Your task to perform on an android device: Clear the cart on walmart. Add alienware area 51 to the cart on walmart Image 0: 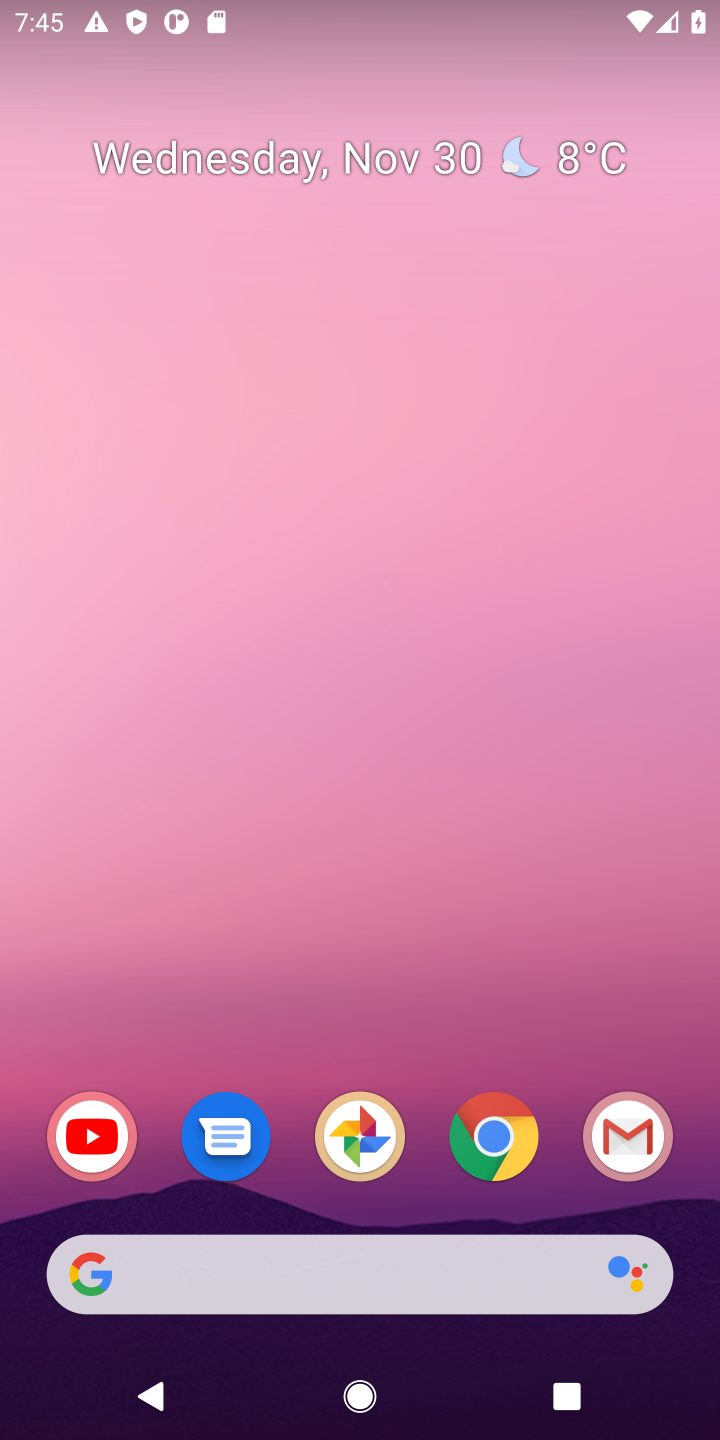
Step 0: click (495, 1148)
Your task to perform on an android device: Clear the cart on walmart. Add alienware area 51 to the cart on walmart Image 1: 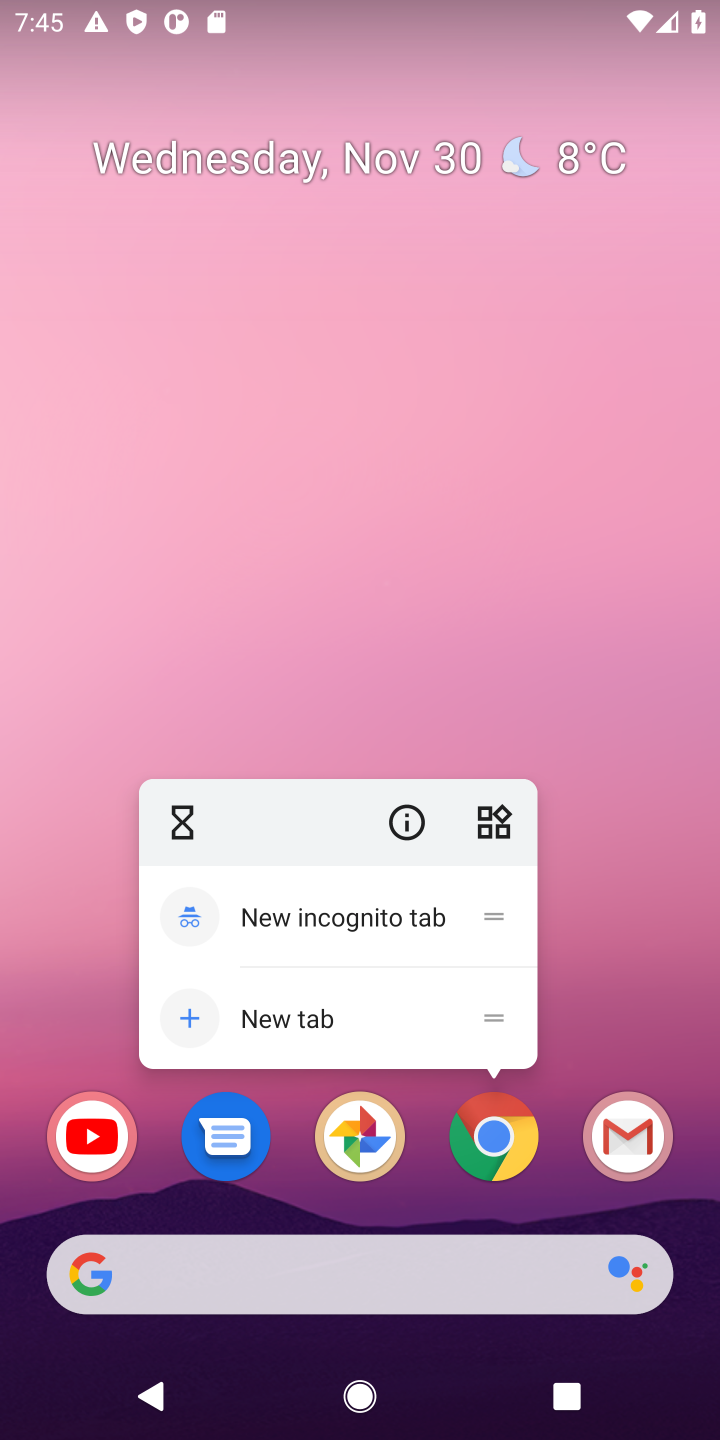
Step 1: click (495, 1148)
Your task to perform on an android device: Clear the cart on walmart. Add alienware area 51 to the cart on walmart Image 2: 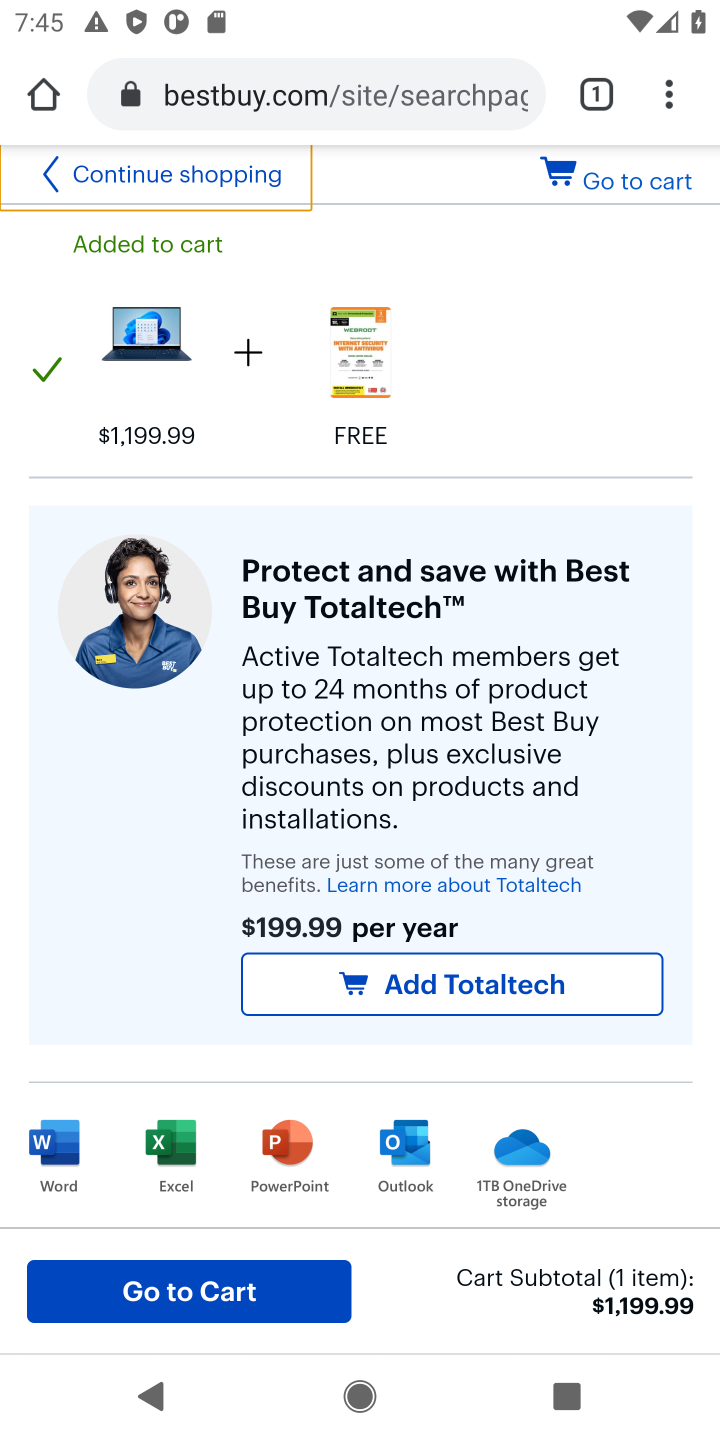
Step 2: click (305, 104)
Your task to perform on an android device: Clear the cart on walmart. Add alienware area 51 to the cart on walmart Image 3: 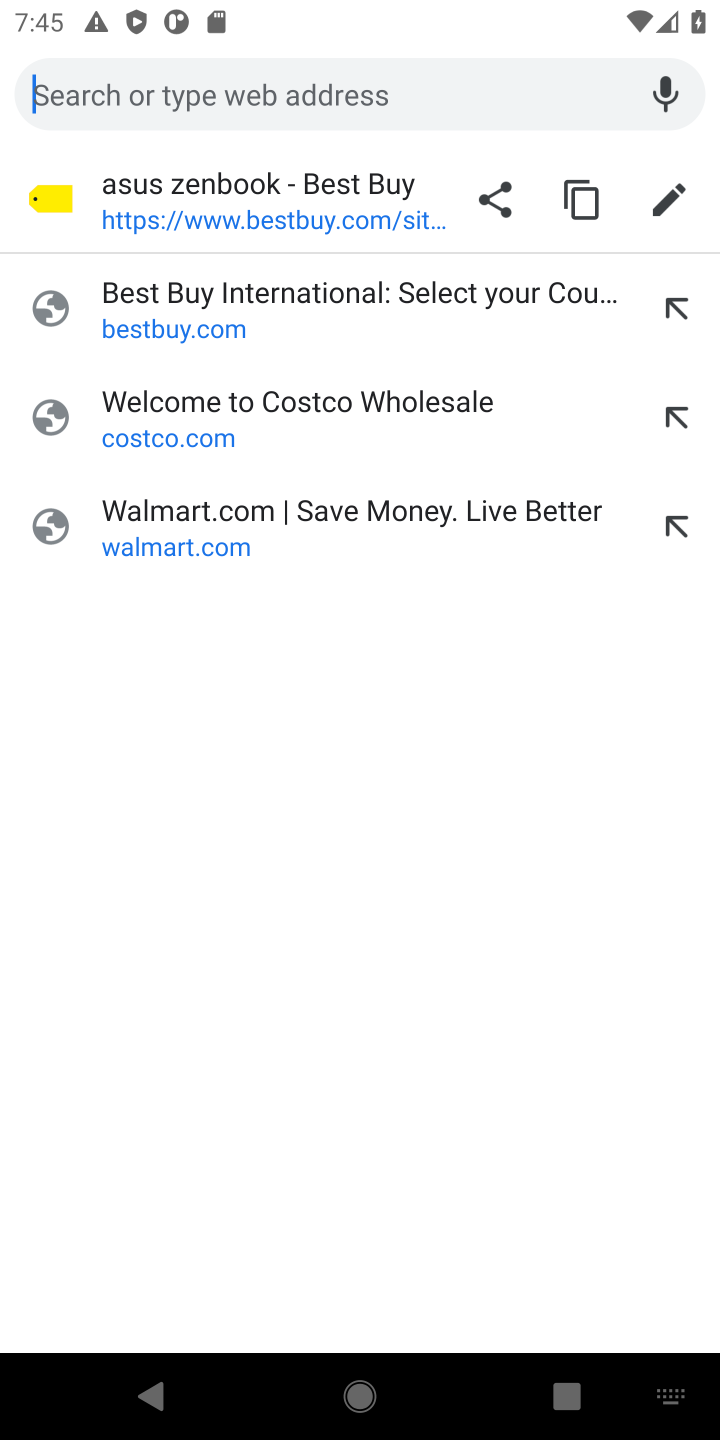
Step 3: click (196, 527)
Your task to perform on an android device: Clear the cart on walmart. Add alienware area 51 to the cart on walmart Image 4: 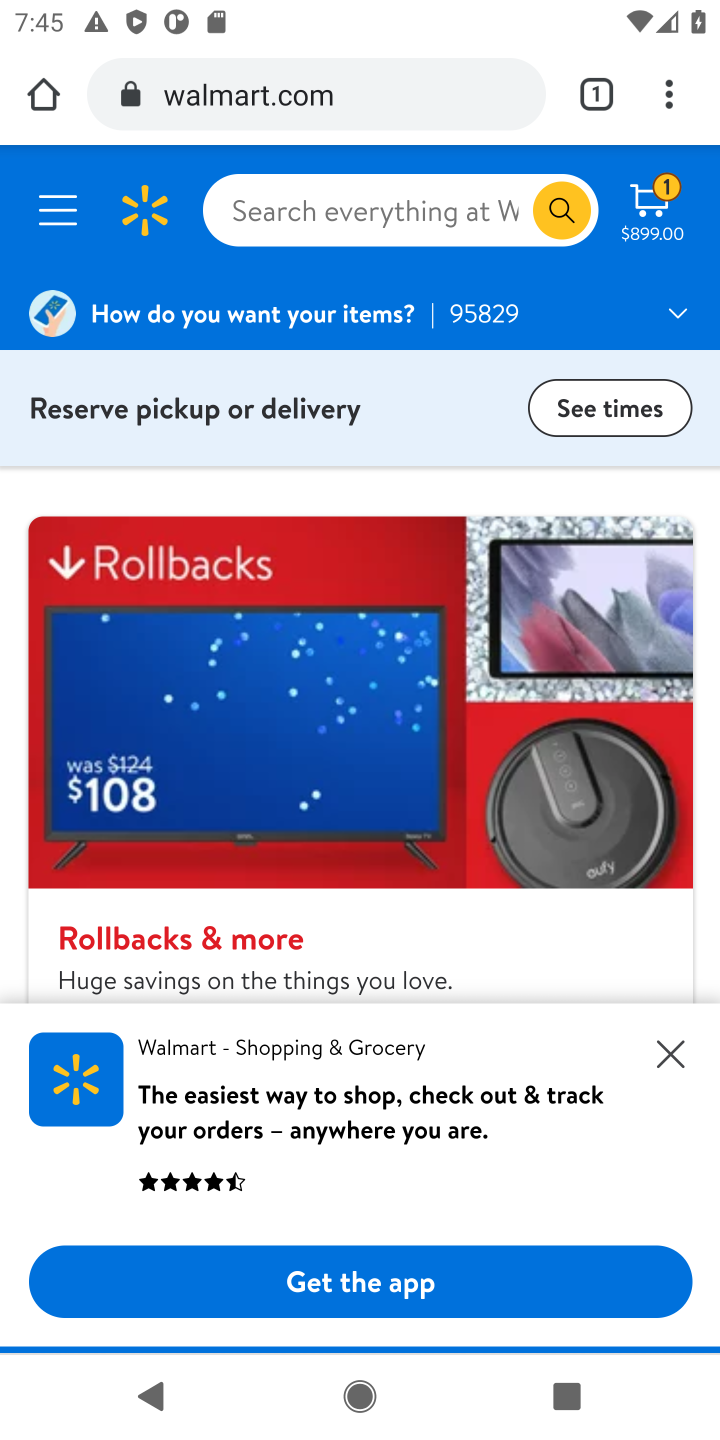
Step 4: click (652, 219)
Your task to perform on an android device: Clear the cart on walmart. Add alienware area 51 to the cart on walmart Image 5: 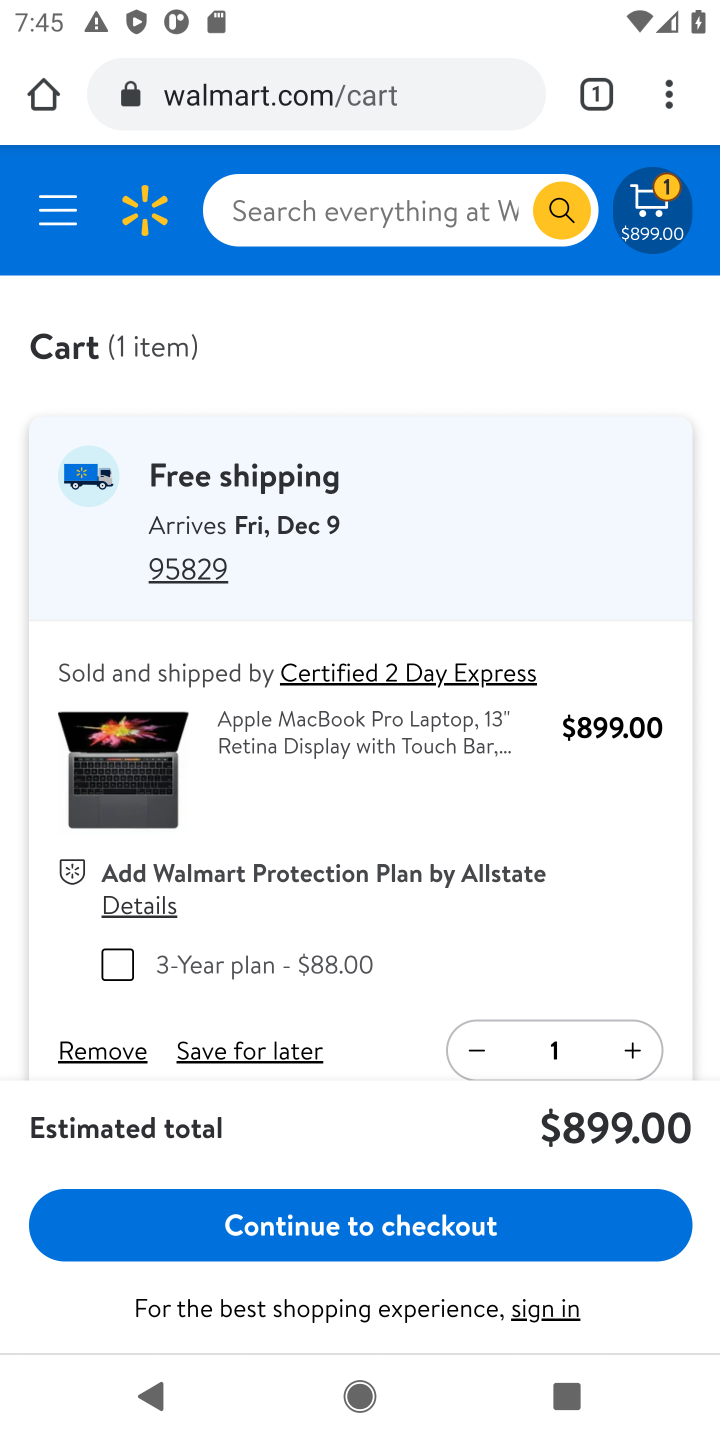
Step 5: click (99, 1049)
Your task to perform on an android device: Clear the cart on walmart. Add alienware area 51 to the cart on walmart Image 6: 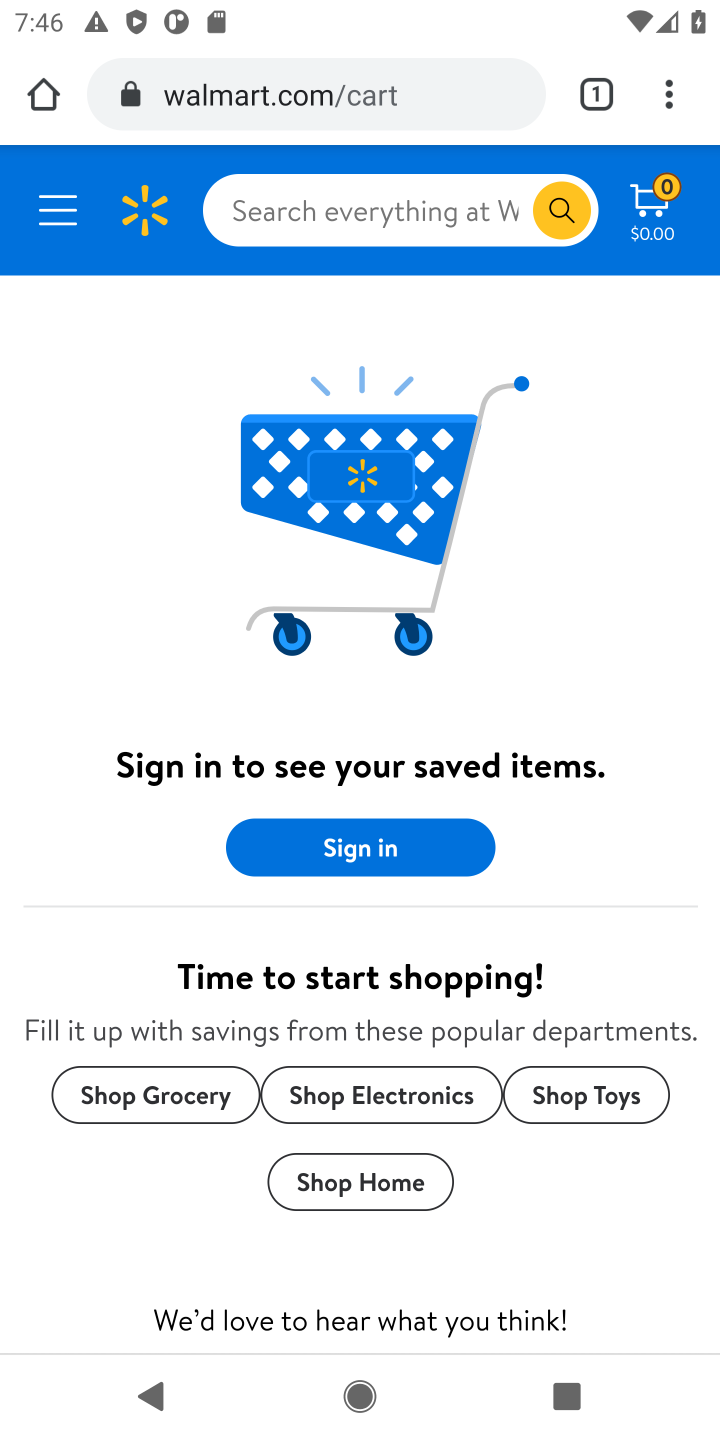
Step 6: click (355, 203)
Your task to perform on an android device: Clear the cart on walmart. Add alienware area 51 to the cart on walmart Image 7: 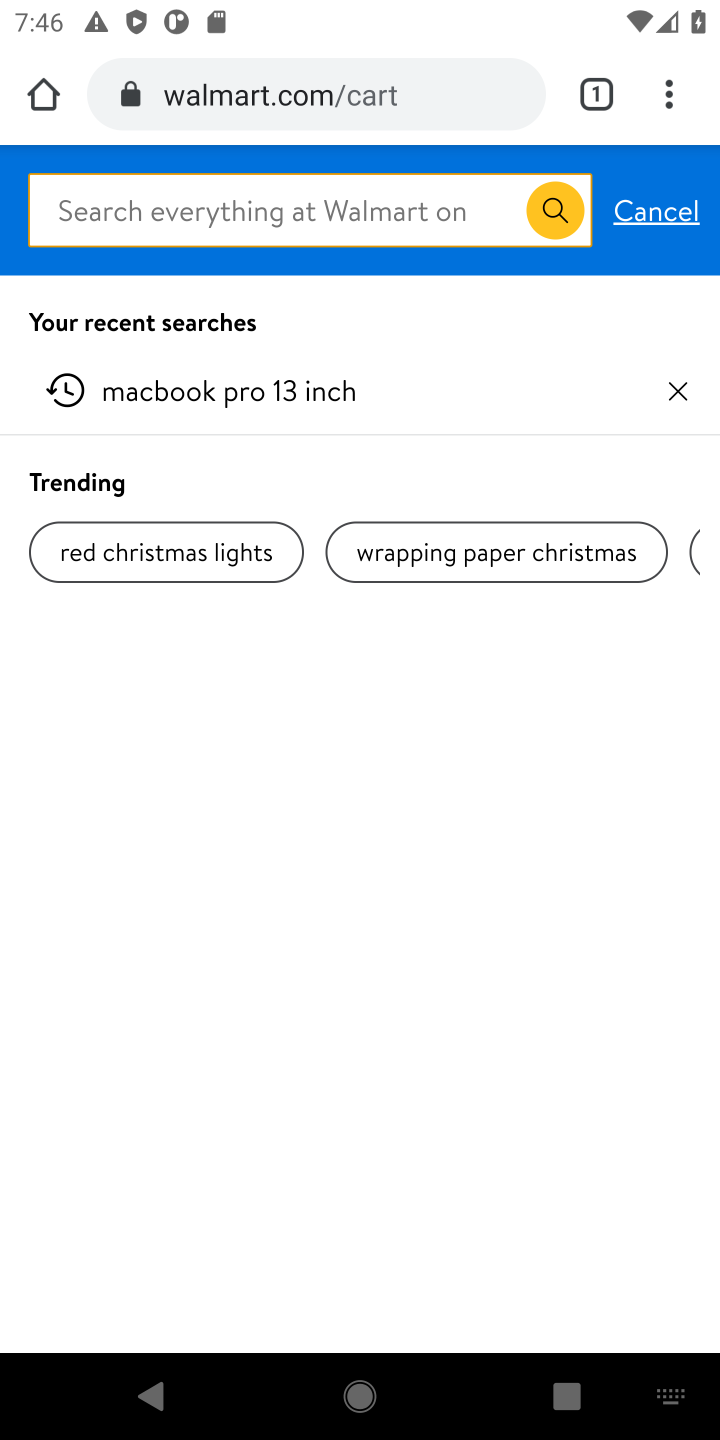
Step 7: type "alienware area 51"
Your task to perform on an android device: Clear the cart on walmart. Add alienware area 51 to the cart on walmart Image 8: 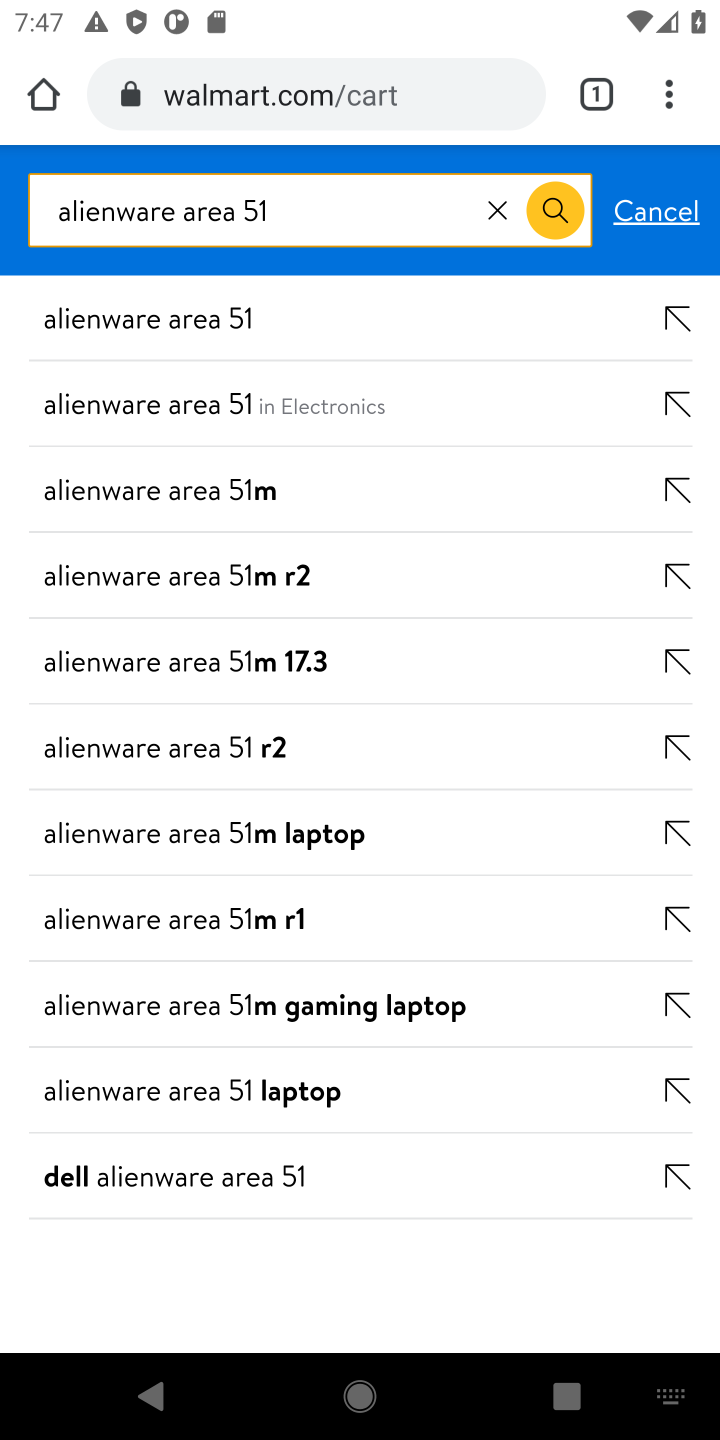
Step 8: click (176, 331)
Your task to perform on an android device: Clear the cart on walmart. Add alienware area 51 to the cart on walmart Image 9: 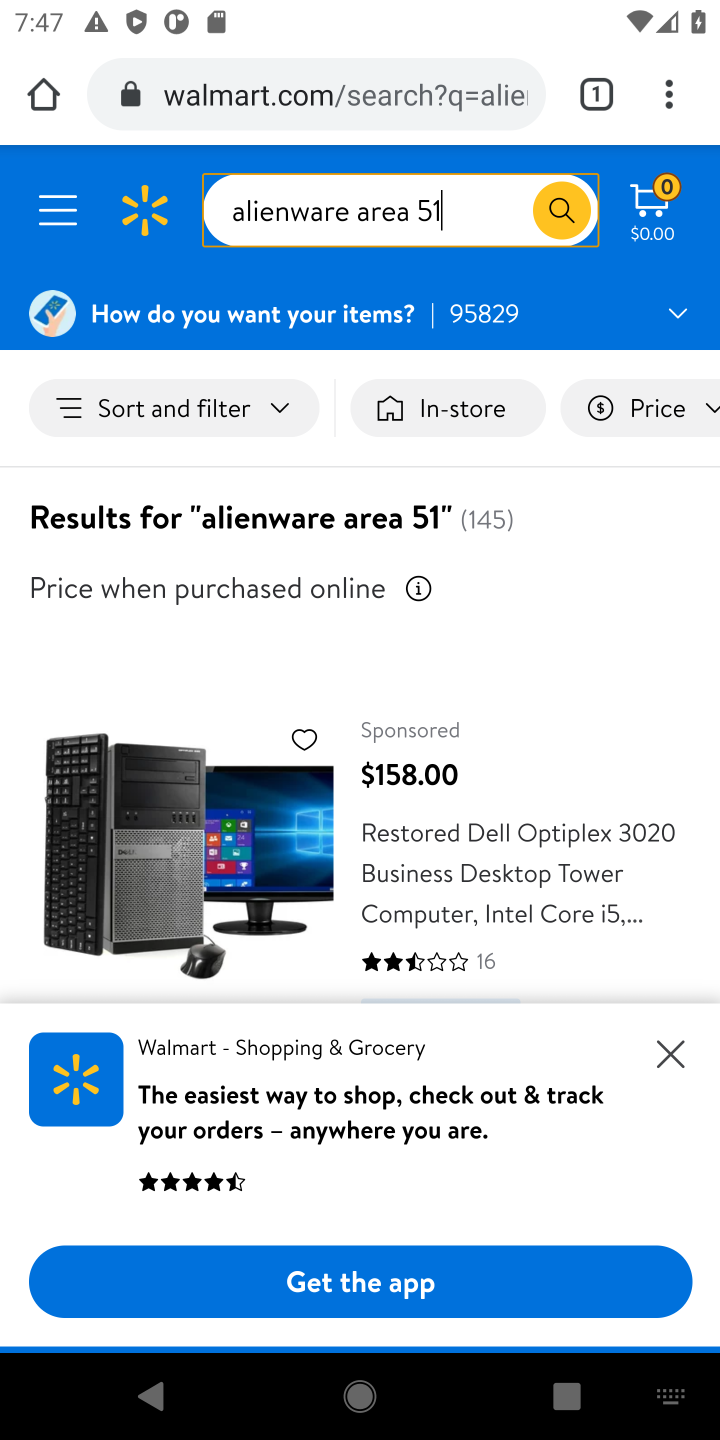
Step 9: drag from (487, 730) to (508, 491)
Your task to perform on an android device: Clear the cart on walmart. Add alienware area 51 to the cart on walmart Image 10: 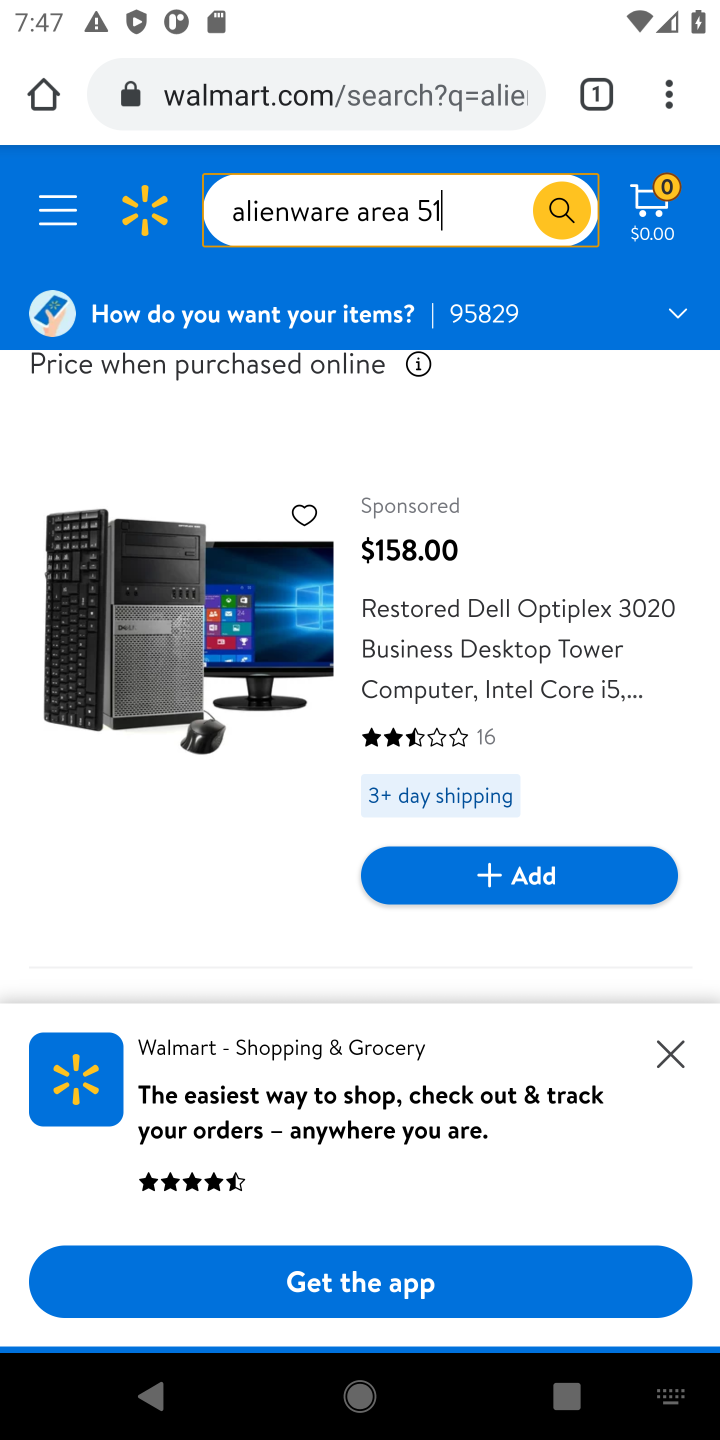
Step 10: drag from (537, 755) to (568, 379)
Your task to perform on an android device: Clear the cart on walmart. Add alienware area 51 to the cart on walmart Image 11: 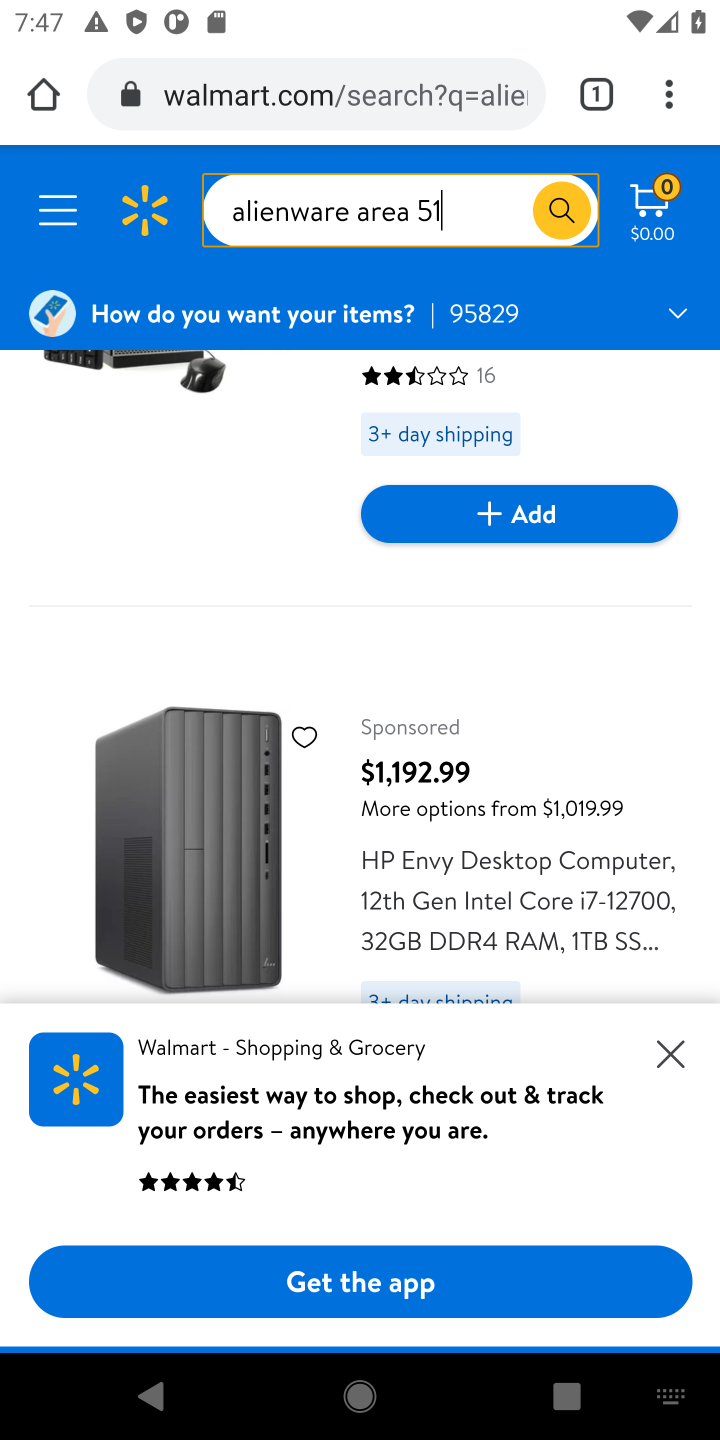
Step 11: click (663, 1050)
Your task to perform on an android device: Clear the cart on walmart. Add alienware area 51 to the cart on walmart Image 12: 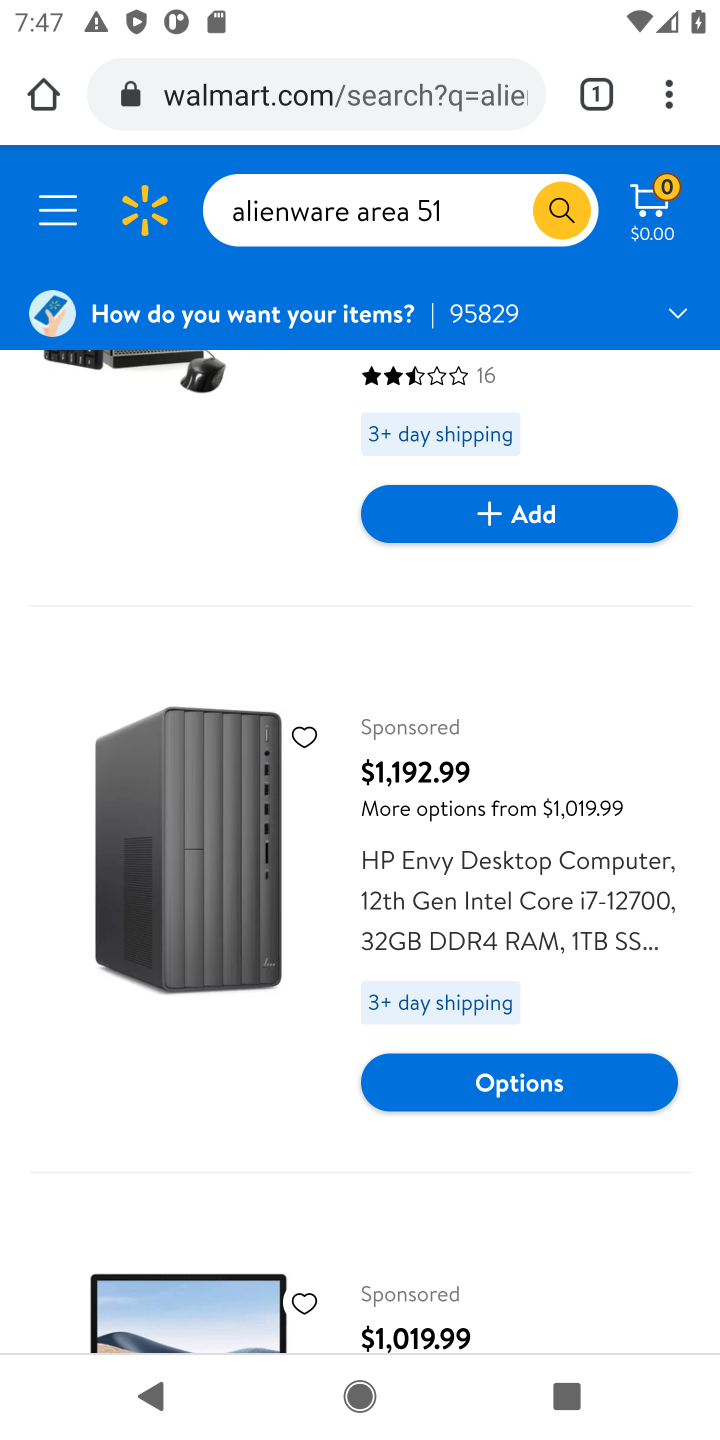
Step 12: drag from (452, 865) to (504, 509)
Your task to perform on an android device: Clear the cart on walmart. Add alienware area 51 to the cart on walmart Image 13: 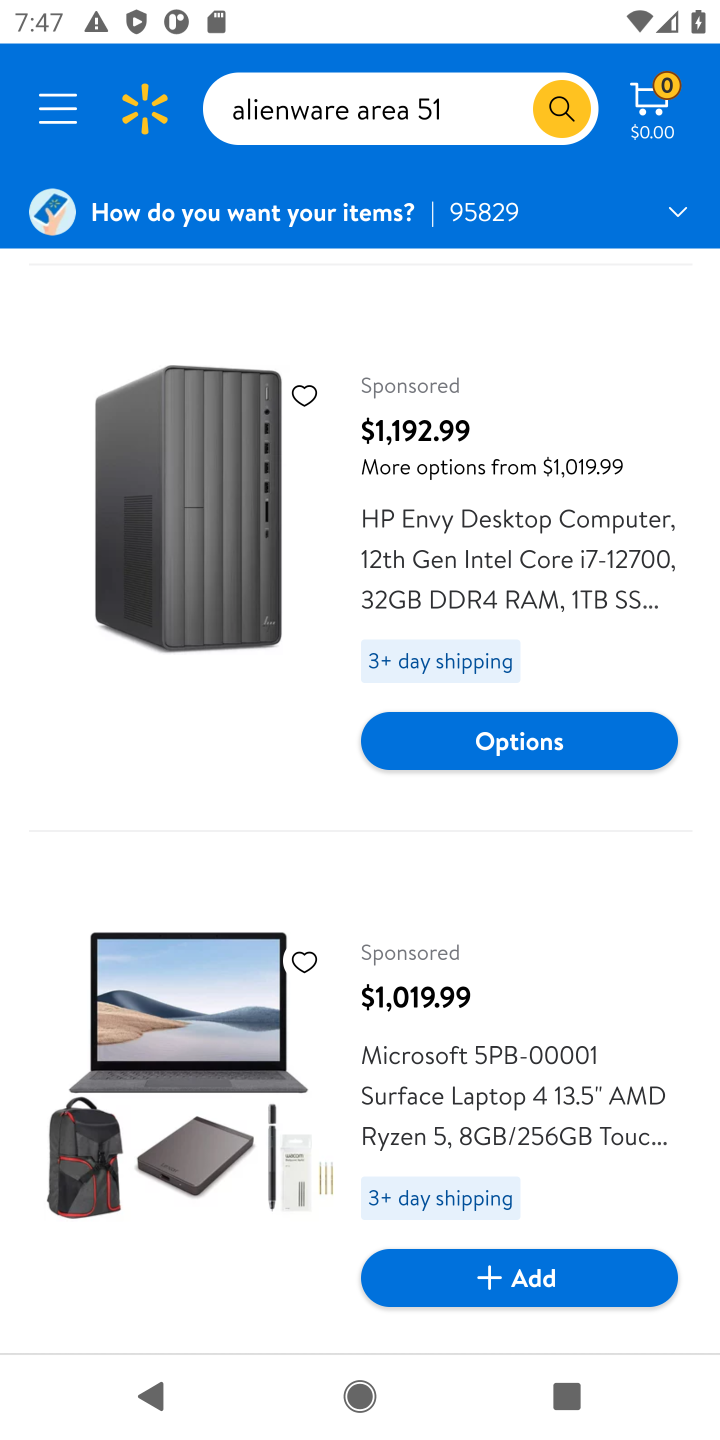
Step 13: drag from (556, 925) to (588, 489)
Your task to perform on an android device: Clear the cart on walmart. Add alienware area 51 to the cart on walmart Image 14: 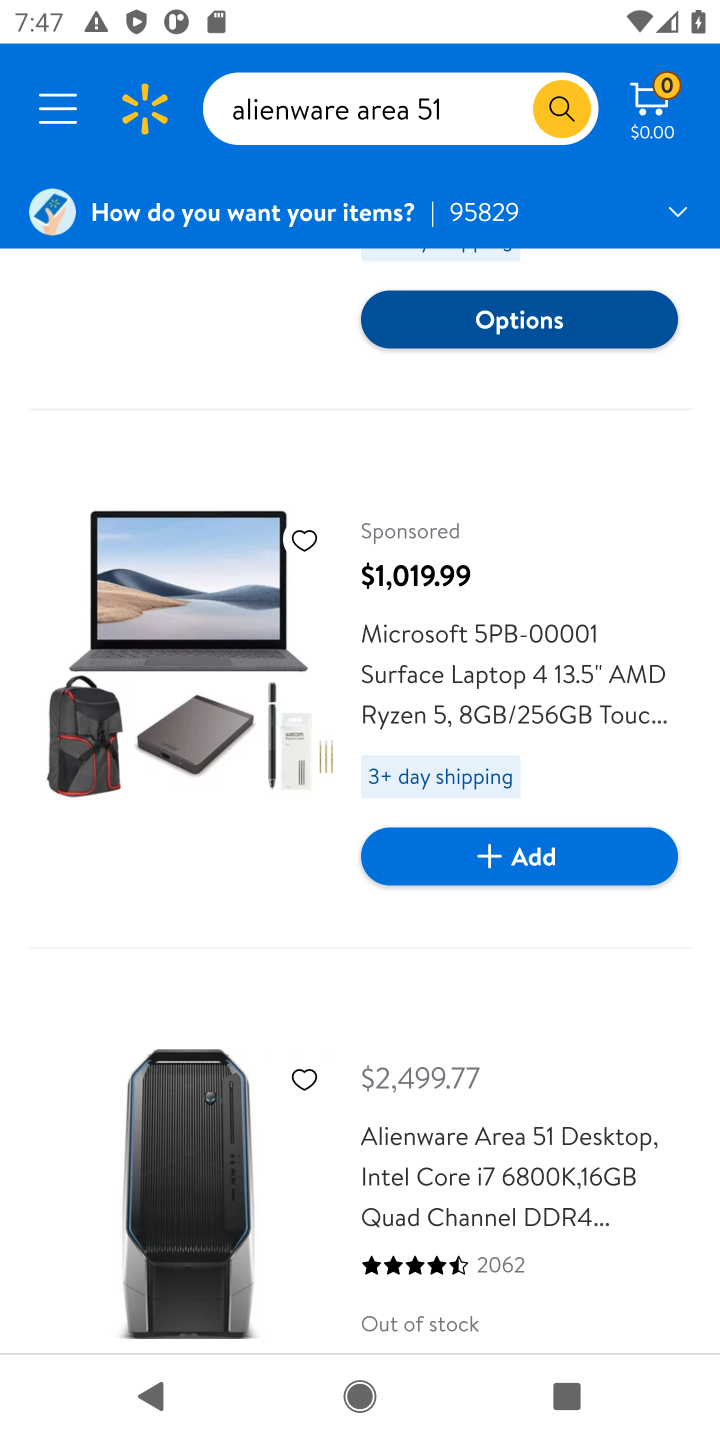
Step 14: drag from (572, 1027) to (605, 683)
Your task to perform on an android device: Clear the cart on walmart. Add alienware area 51 to the cart on walmart Image 15: 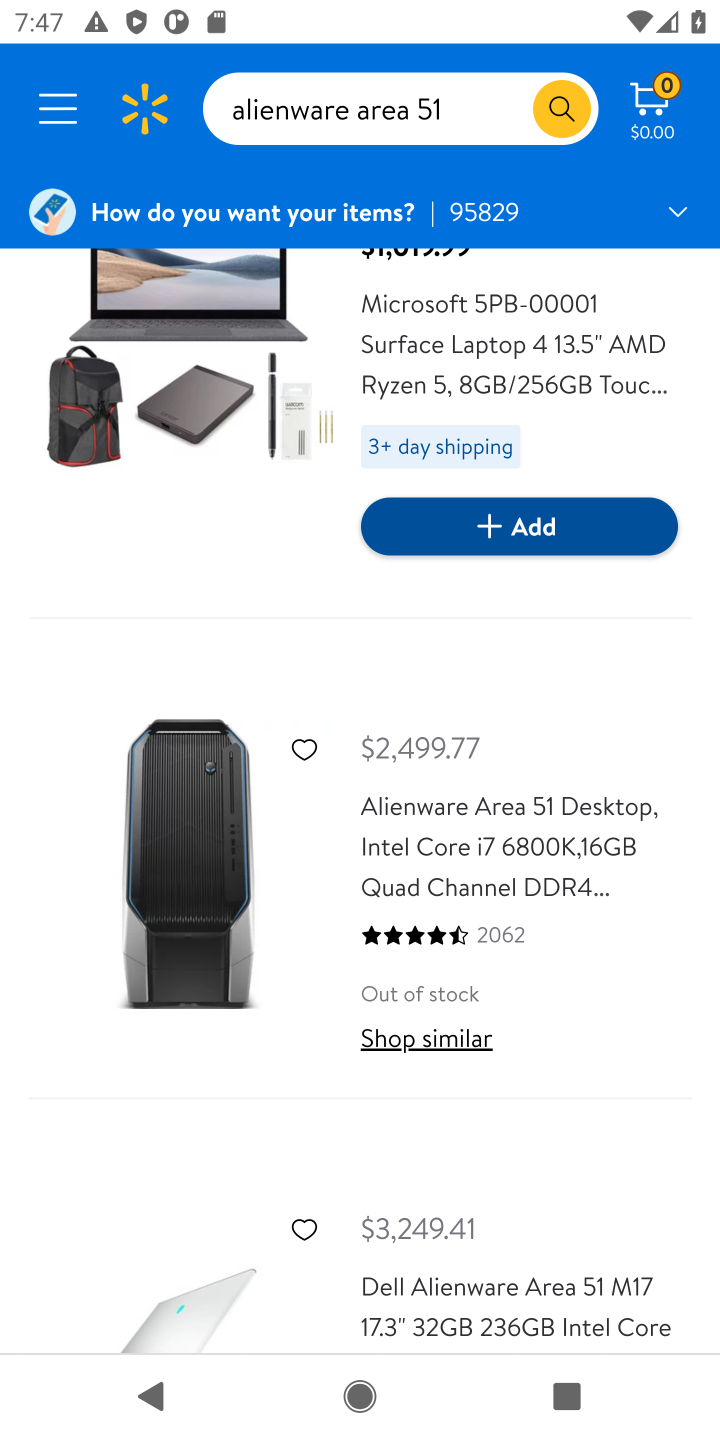
Step 15: drag from (523, 958) to (535, 501)
Your task to perform on an android device: Clear the cart on walmart. Add alienware area 51 to the cart on walmart Image 16: 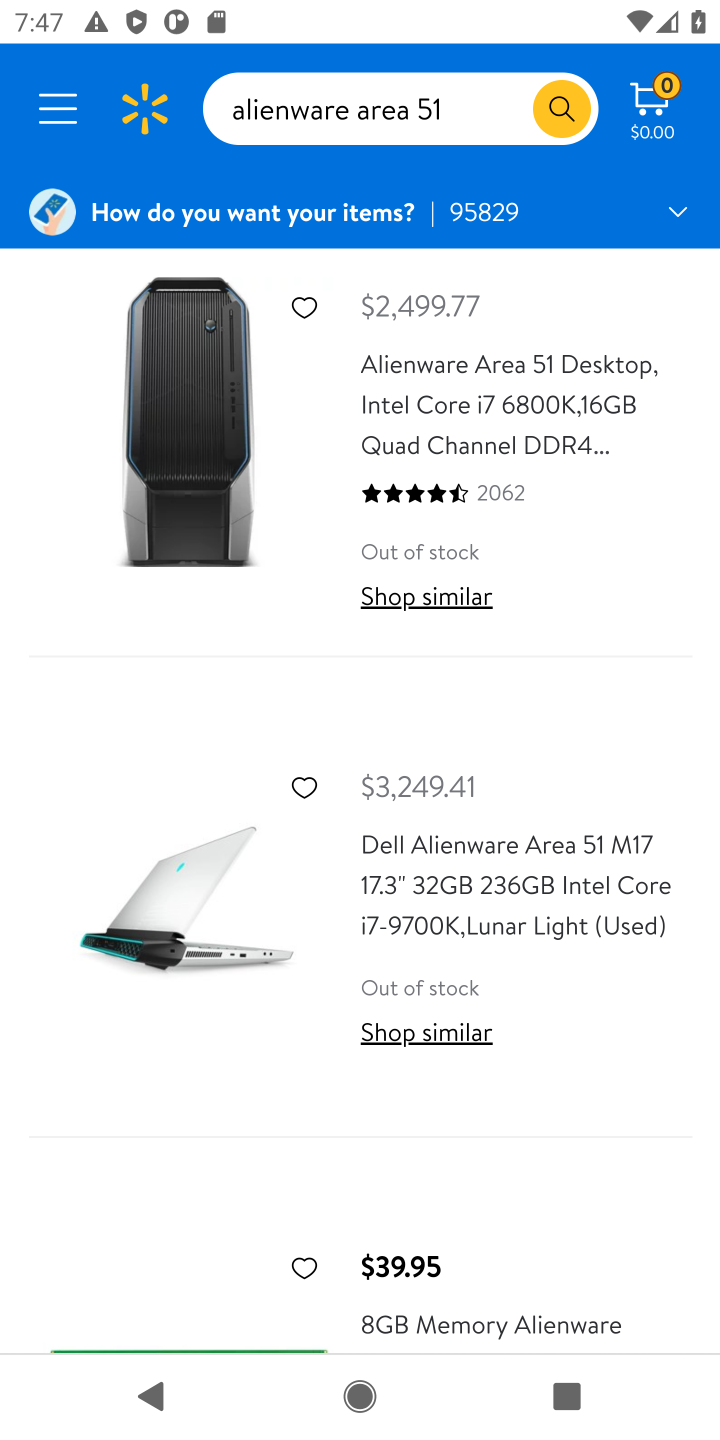
Step 16: drag from (514, 1040) to (548, 436)
Your task to perform on an android device: Clear the cart on walmart. Add alienware area 51 to the cart on walmart Image 17: 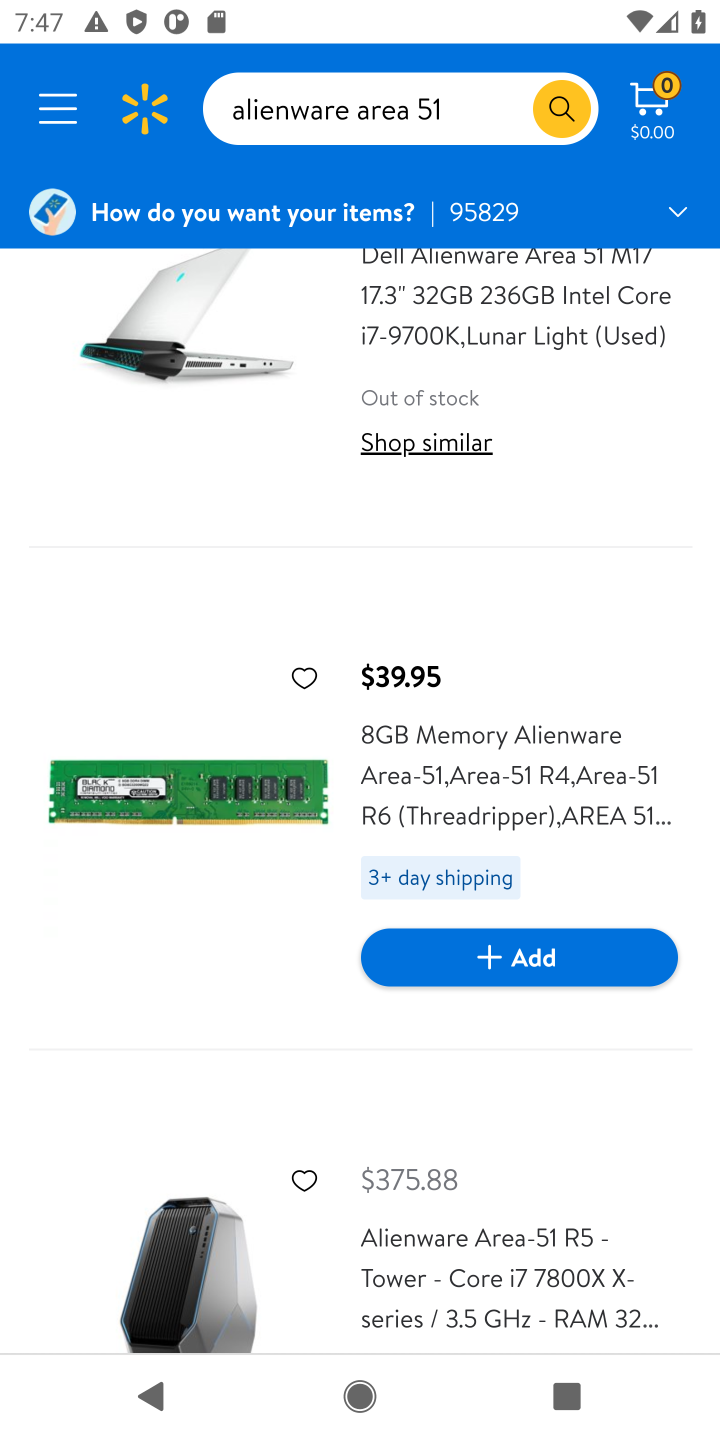
Step 17: click (503, 970)
Your task to perform on an android device: Clear the cart on walmart. Add alienware area 51 to the cart on walmart Image 18: 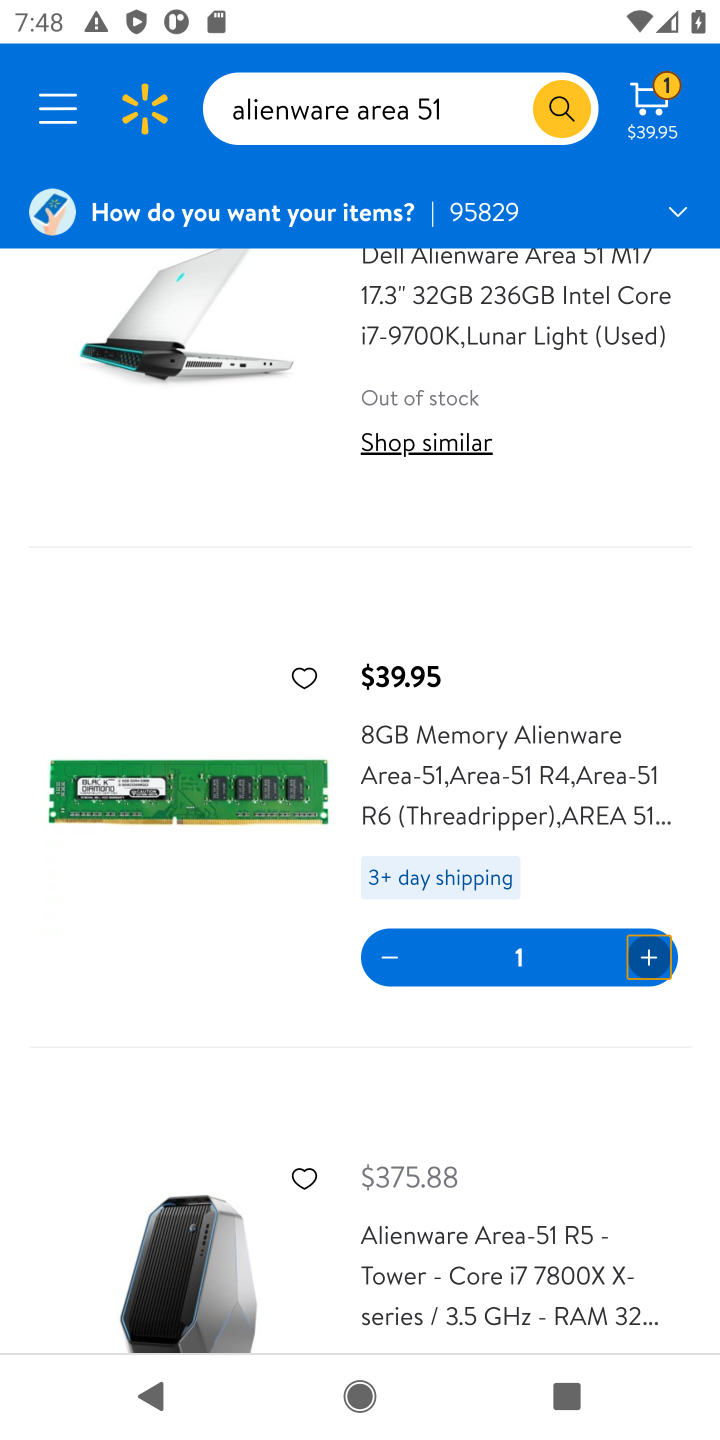
Step 18: task complete